Your task to perform on an android device: turn on the 24-hour format for clock Image 0: 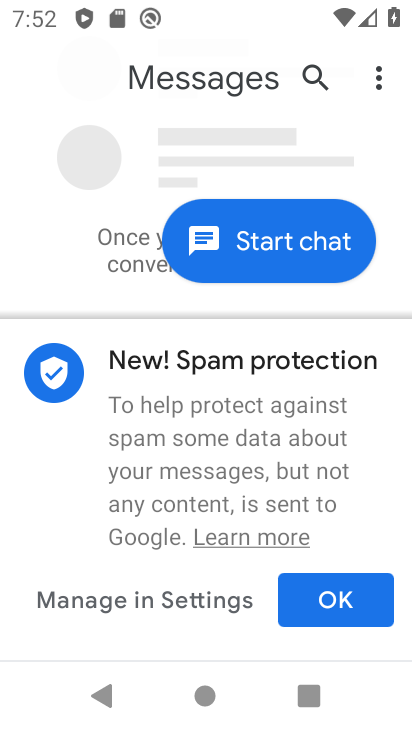
Step 0: press home button
Your task to perform on an android device: turn on the 24-hour format for clock Image 1: 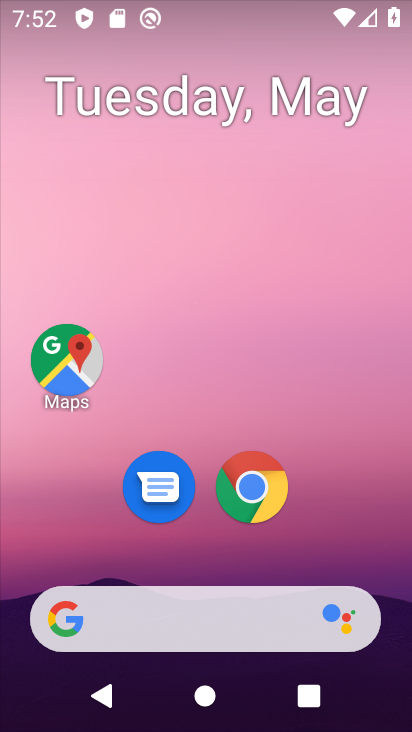
Step 1: drag from (347, 525) to (325, 97)
Your task to perform on an android device: turn on the 24-hour format for clock Image 2: 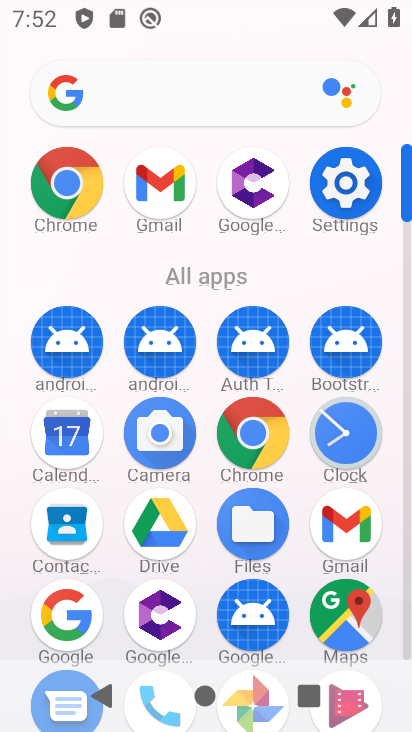
Step 2: click (336, 437)
Your task to perform on an android device: turn on the 24-hour format for clock Image 3: 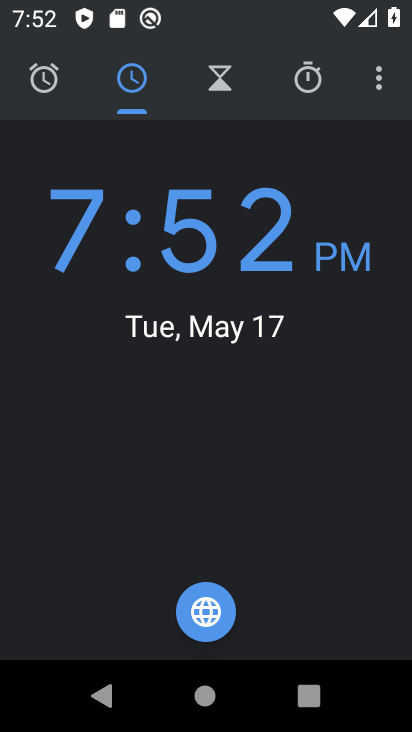
Step 3: click (374, 81)
Your task to perform on an android device: turn on the 24-hour format for clock Image 4: 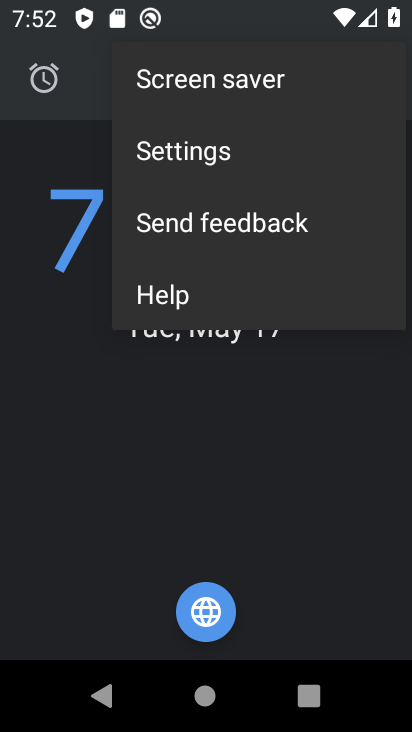
Step 4: click (312, 160)
Your task to perform on an android device: turn on the 24-hour format for clock Image 5: 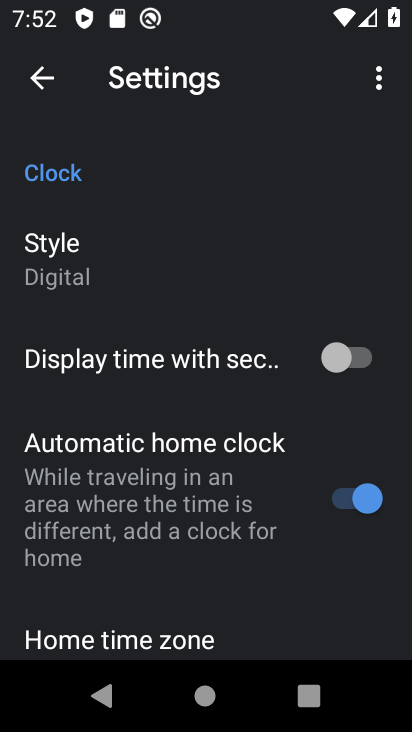
Step 5: drag from (184, 503) to (197, 157)
Your task to perform on an android device: turn on the 24-hour format for clock Image 6: 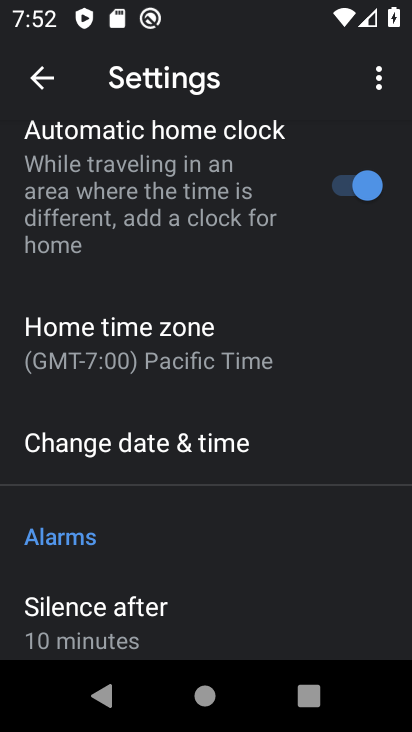
Step 6: click (221, 468)
Your task to perform on an android device: turn on the 24-hour format for clock Image 7: 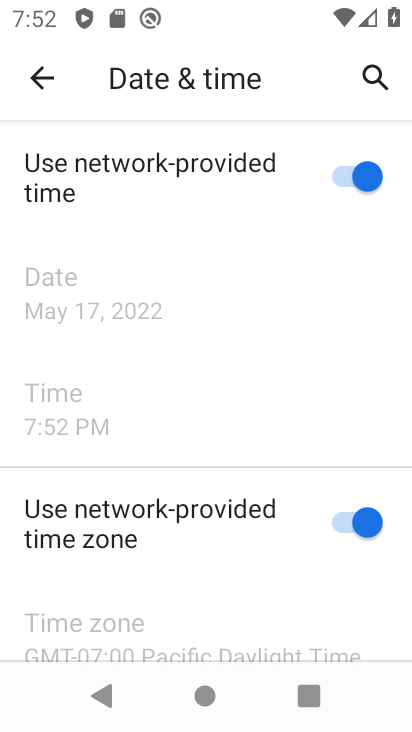
Step 7: drag from (206, 501) to (238, 182)
Your task to perform on an android device: turn on the 24-hour format for clock Image 8: 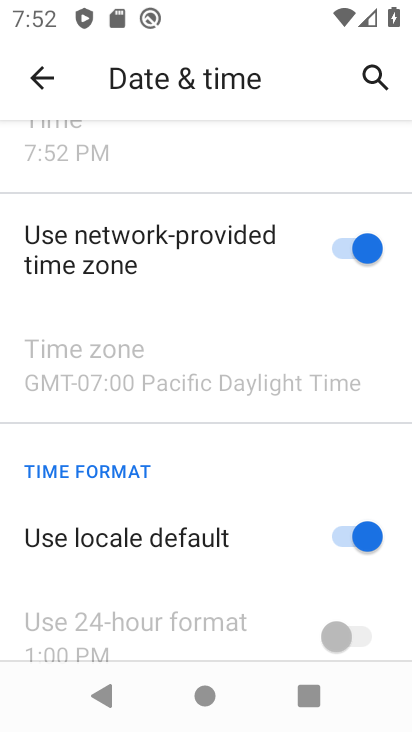
Step 8: drag from (232, 469) to (261, 242)
Your task to perform on an android device: turn on the 24-hour format for clock Image 9: 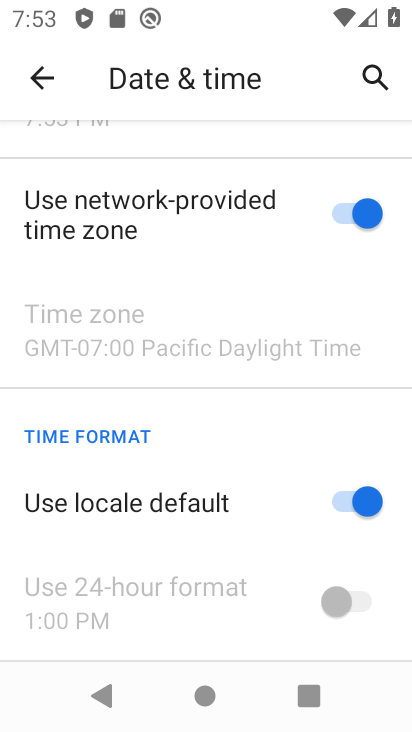
Step 9: click (329, 482)
Your task to perform on an android device: turn on the 24-hour format for clock Image 10: 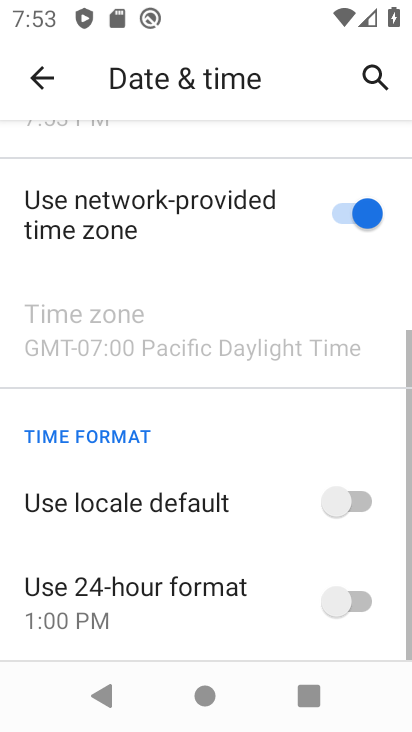
Step 10: click (323, 581)
Your task to perform on an android device: turn on the 24-hour format for clock Image 11: 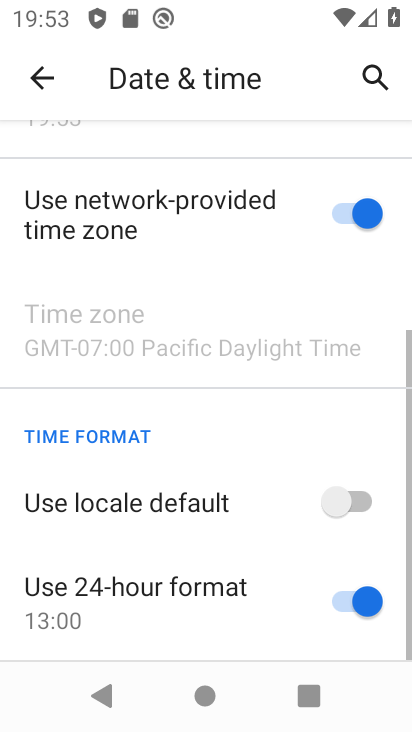
Step 11: task complete